Your task to perform on an android device: toggle location history Image 0: 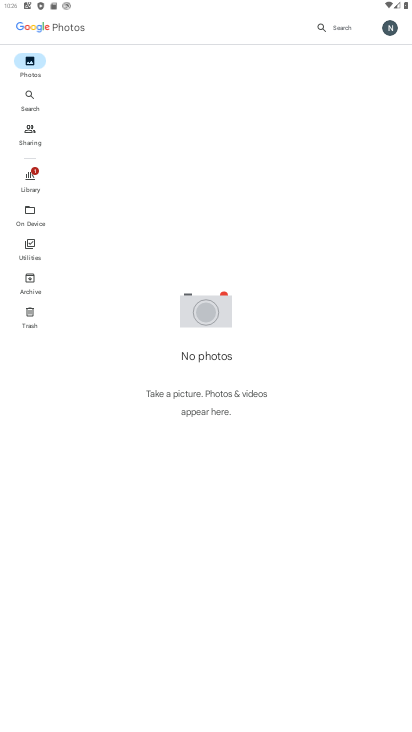
Step 0: press home button
Your task to perform on an android device: toggle location history Image 1: 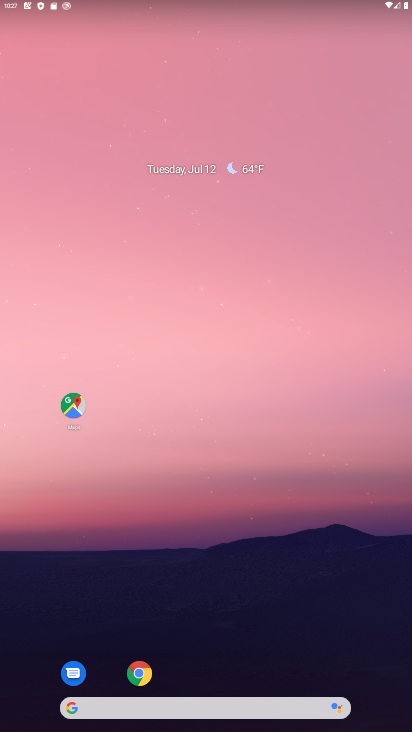
Step 1: drag from (332, 638) to (280, 87)
Your task to perform on an android device: toggle location history Image 2: 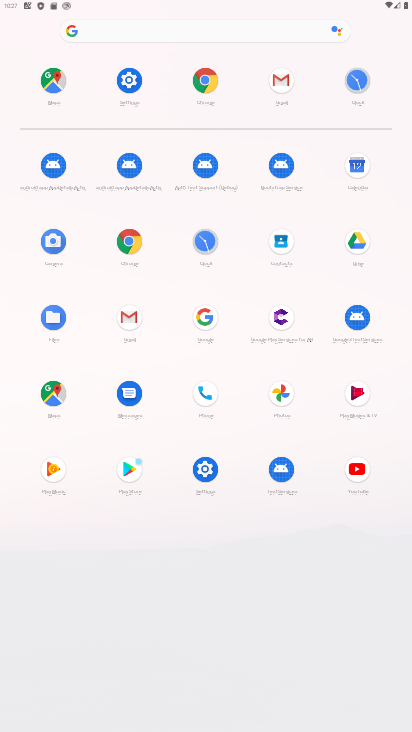
Step 2: click (121, 78)
Your task to perform on an android device: toggle location history Image 3: 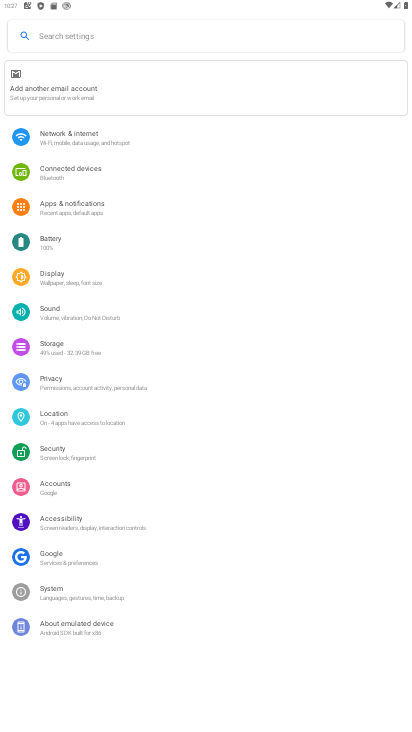
Step 3: click (71, 418)
Your task to perform on an android device: toggle location history Image 4: 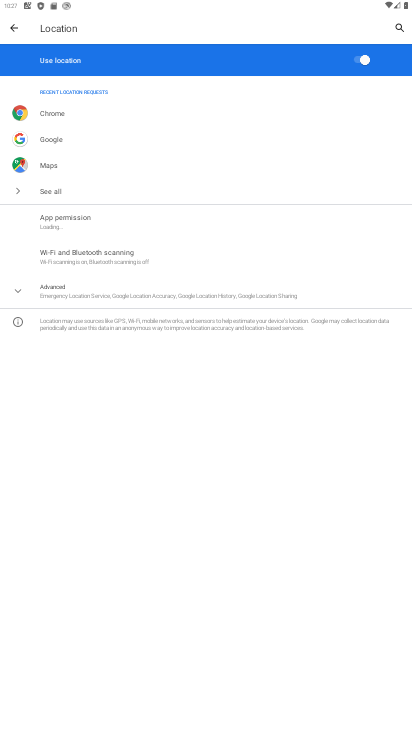
Step 4: click (60, 299)
Your task to perform on an android device: toggle location history Image 5: 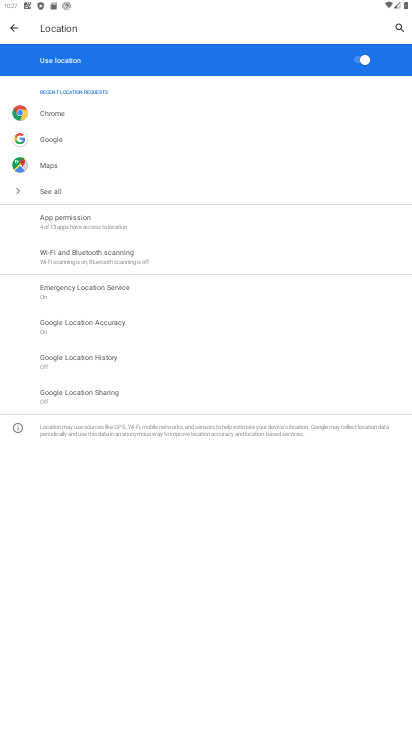
Step 5: click (103, 359)
Your task to perform on an android device: toggle location history Image 6: 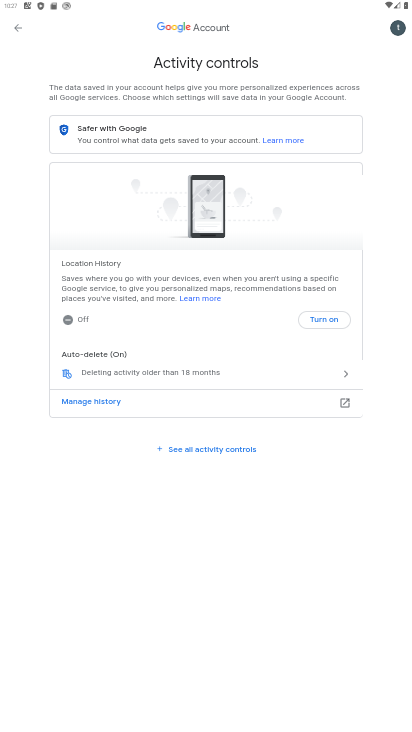
Step 6: click (328, 314)
Your task to perform on an android device: toggle location history Image 7: 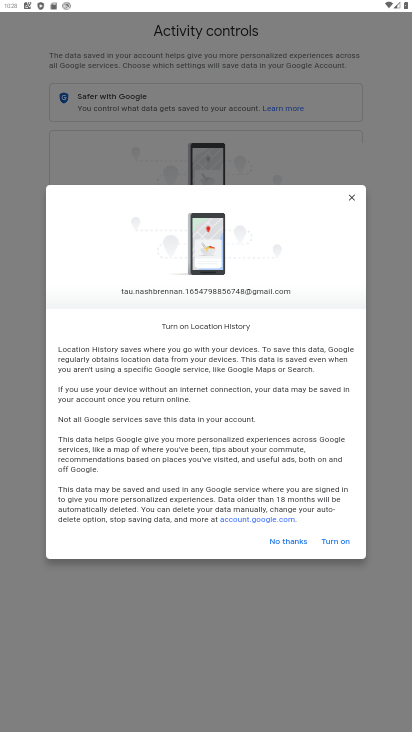
Step 7: drag from (292, 471) to (295, 242)
Your task to perform on an android device: toggle location history Image 8: 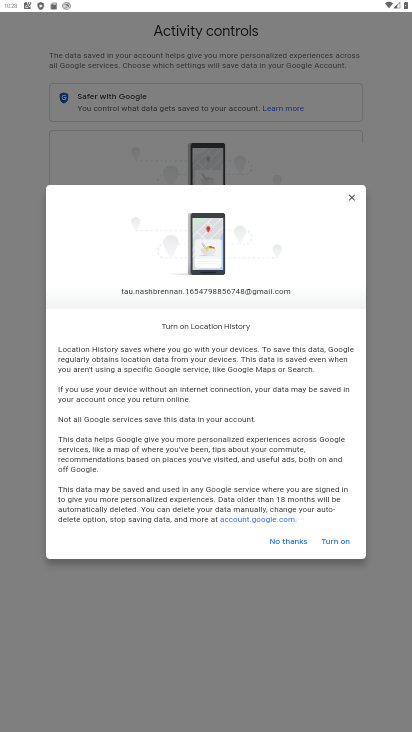
Step 8: click (341, 541)
Your task to perform on an android device: toggle location history Image 9: 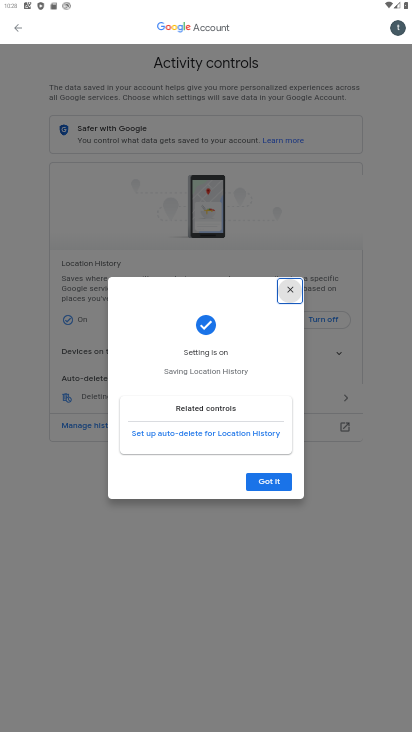
Step 9: task complete